Your task to perform on an android device: install app "Pluto TV - Live TV and Movies" Image 0: 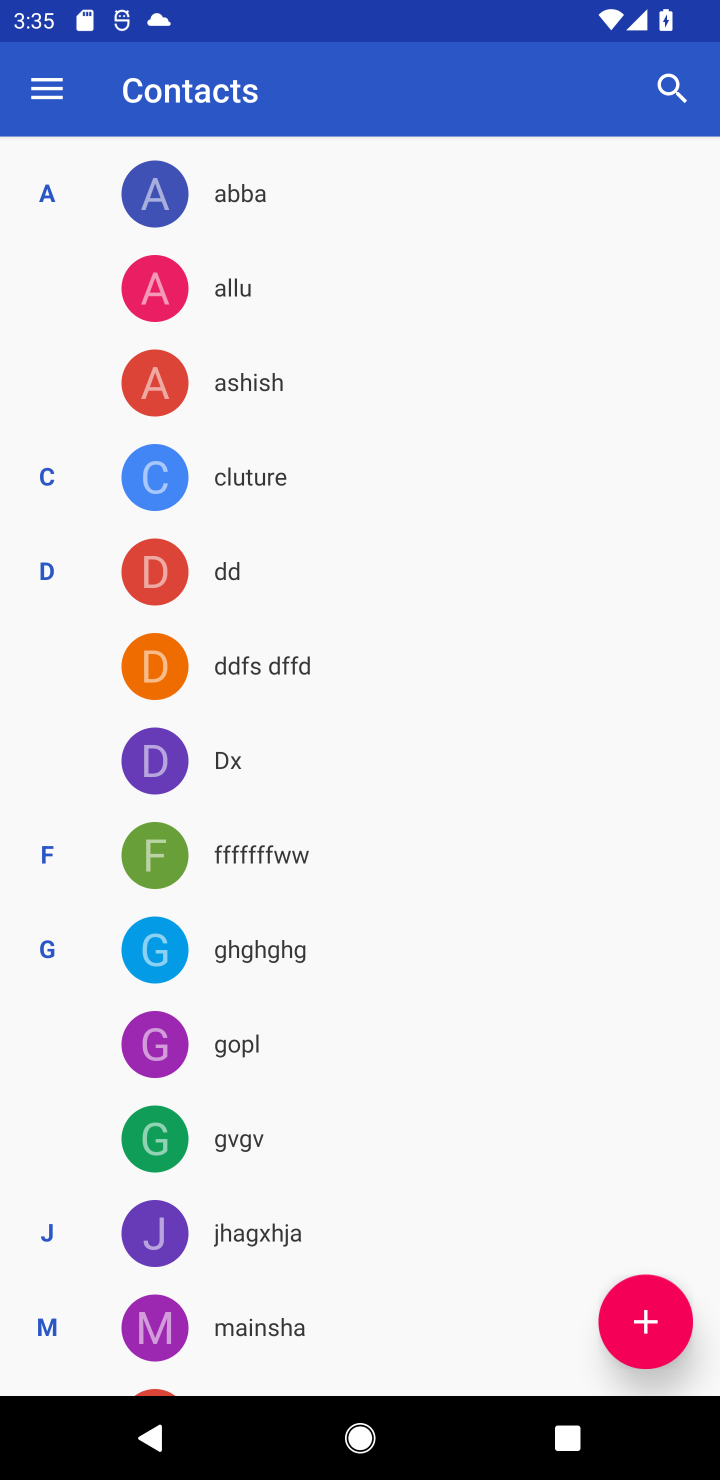
Step 0: press home button
Your task to perform on an android device: install app "Pluto TV - Live TV and Movies" Image 1: 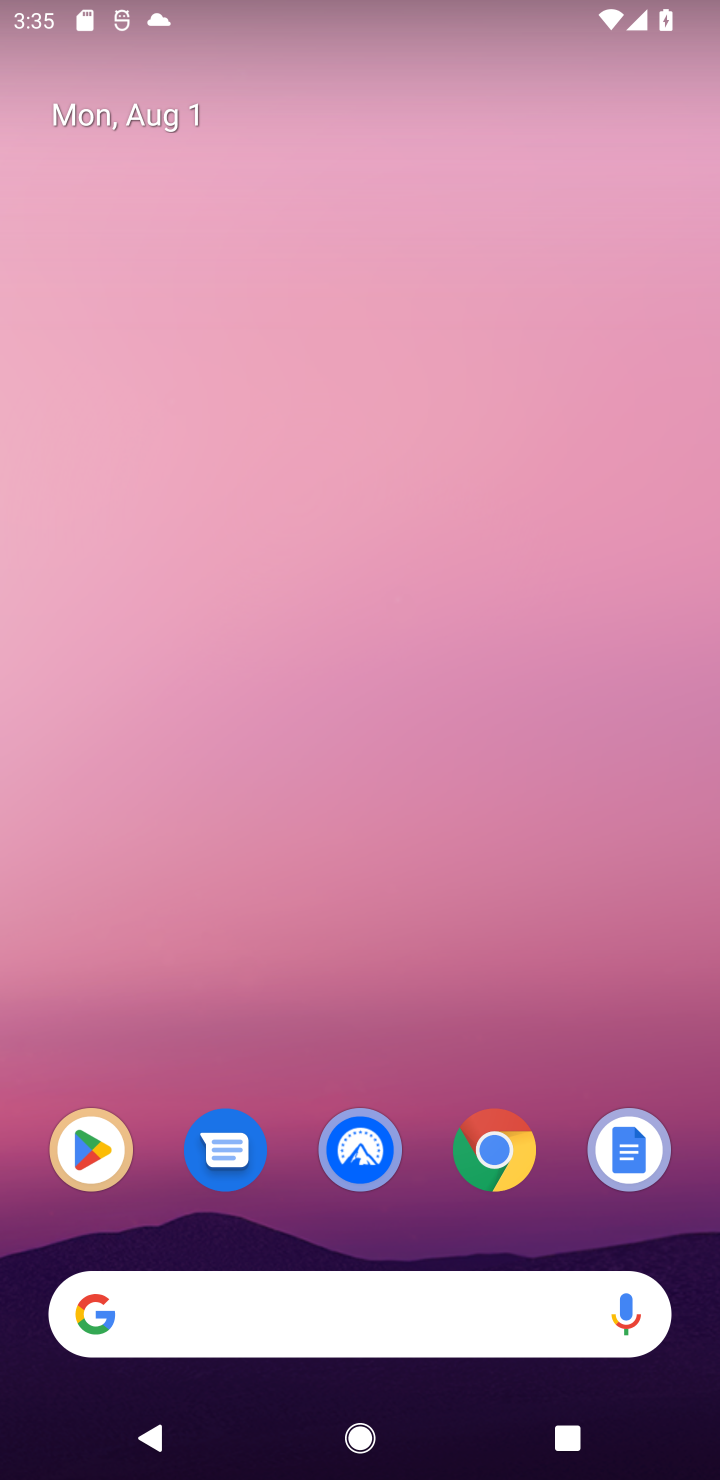
Step 1: click (111, 1163)
Your task to perform on an android device: install app "Pluto TV - Live TV and Movies" Image 2: 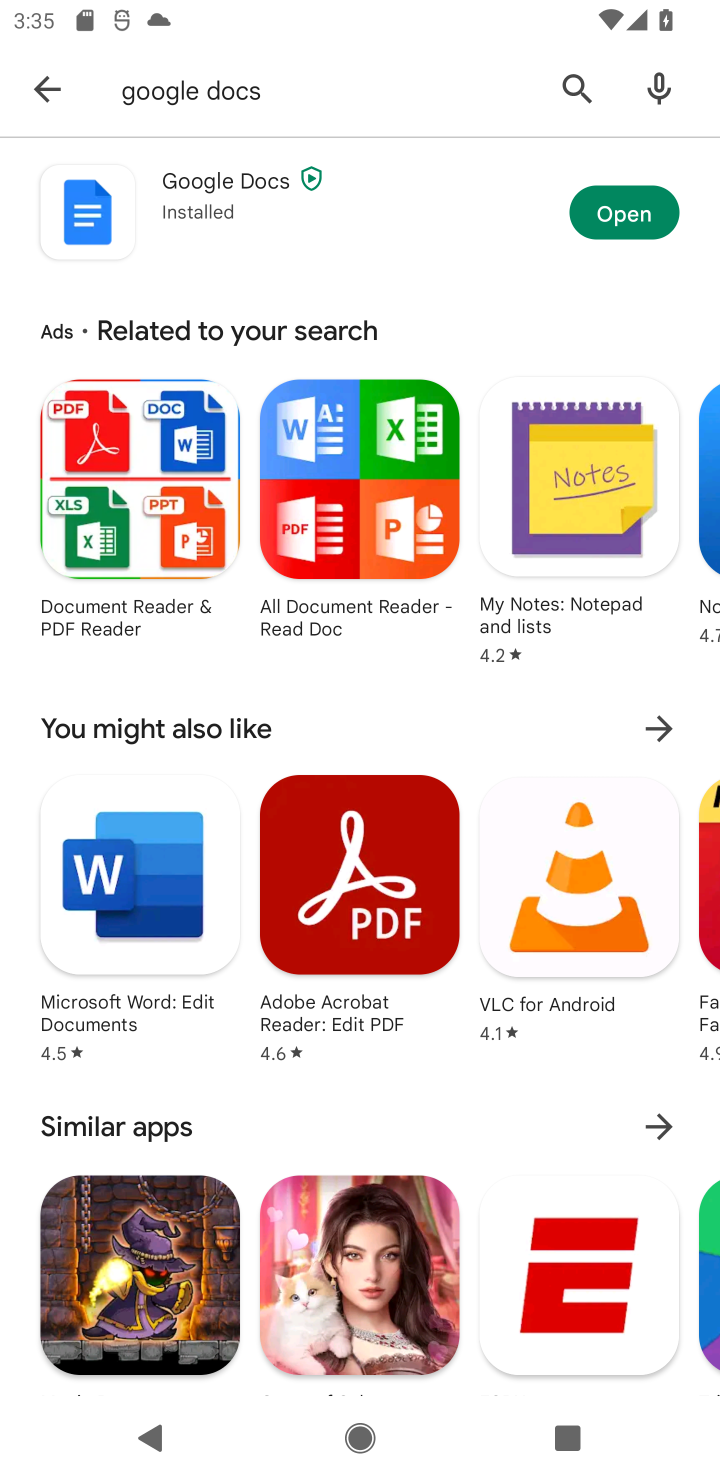
Step 2: click (559, 58)
Your task to perform on an android device: install app "Pluto TV - Live TV and Movies" Image 3: 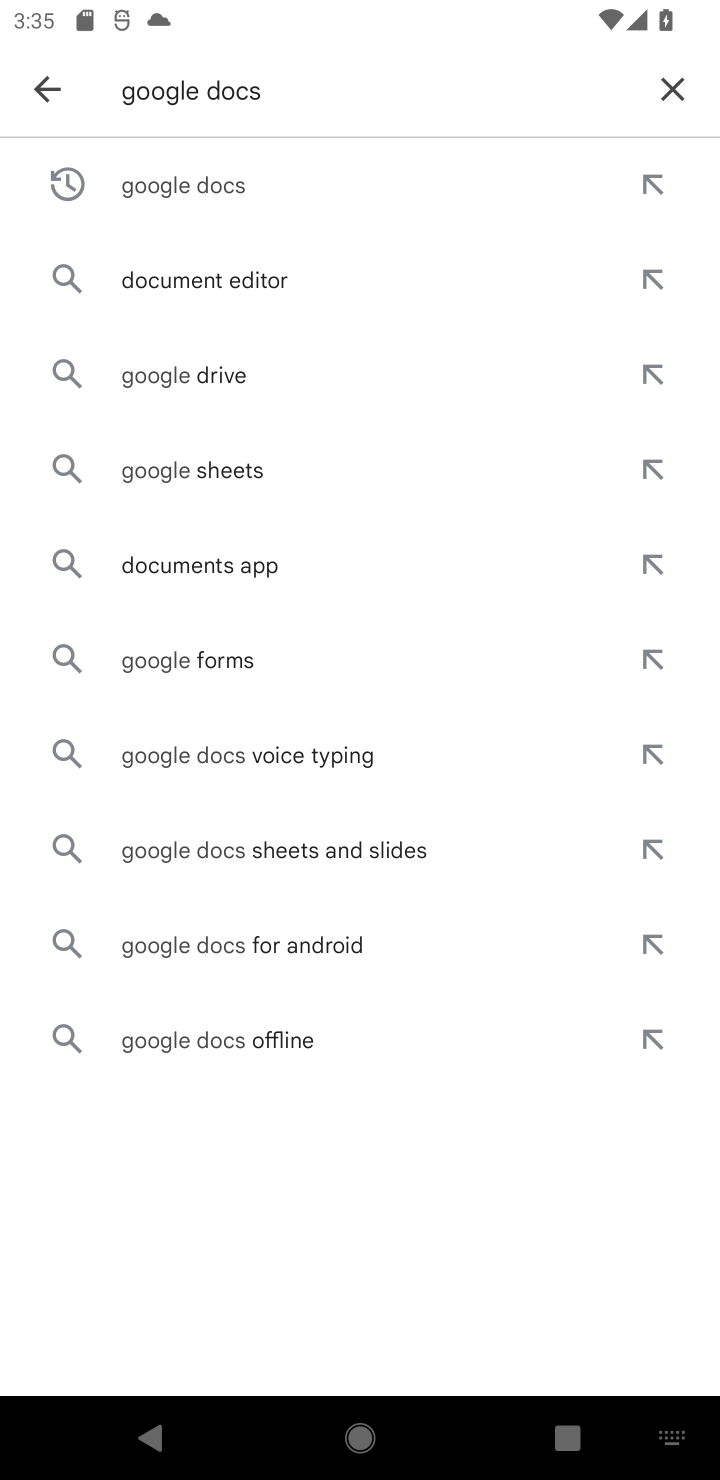
Step 3: click (660, 68)
Your task to perform on an android device: install app "Pluto TV - Live TV and Movies" Image 4: 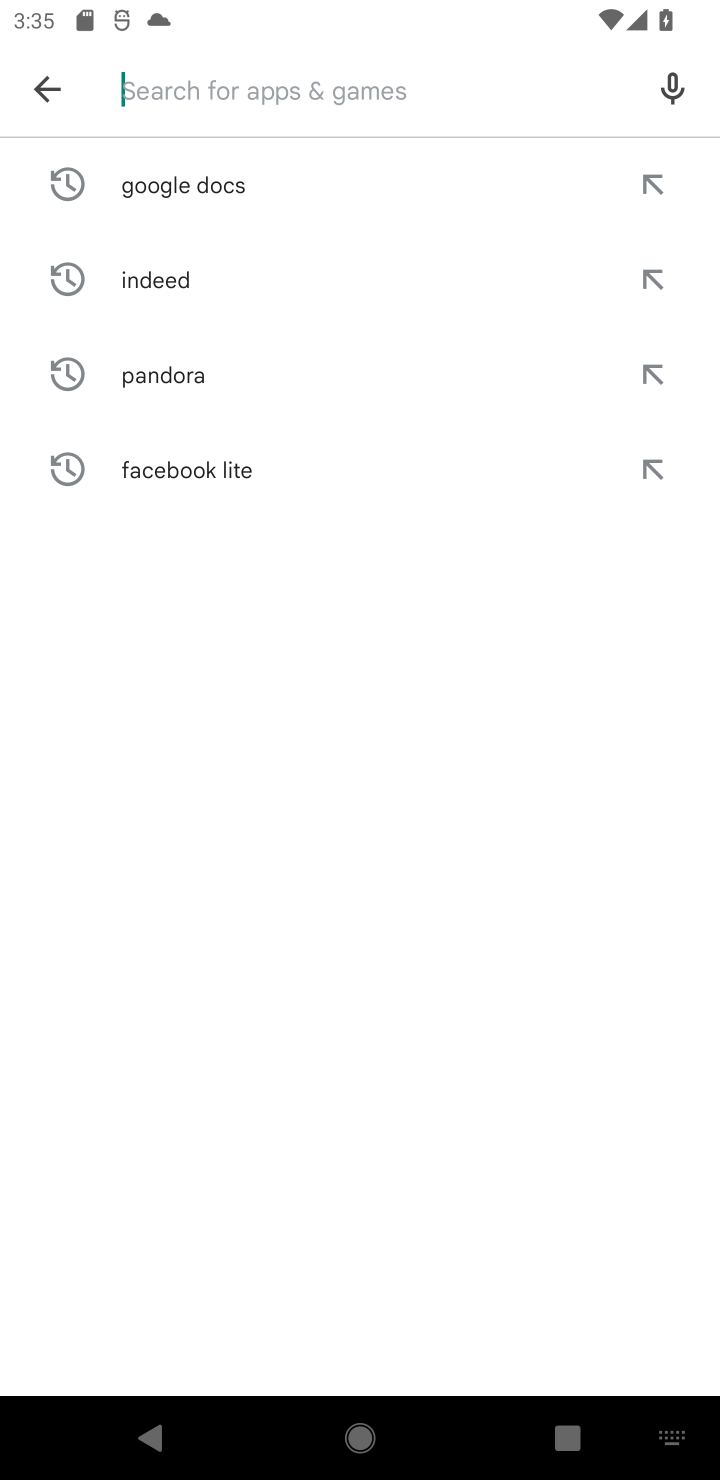
Step 4: type "pluto"
Your task to perform on an android device: install app "Pluto TV - Live TV and Movies" Image 5: 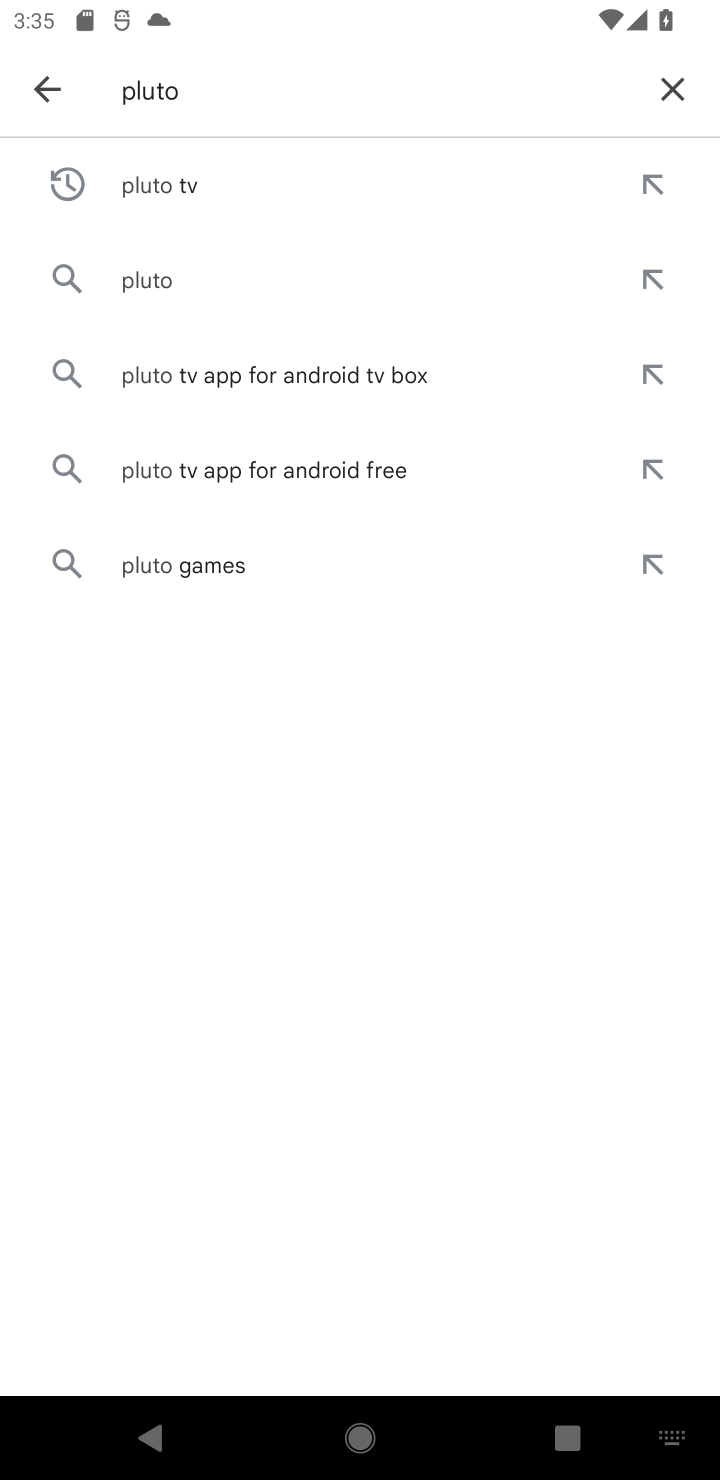
Step 5: click (133, 184)
Your task to perform on an android device: install app "Pluto TV - Live TV and Movies" Image 6: 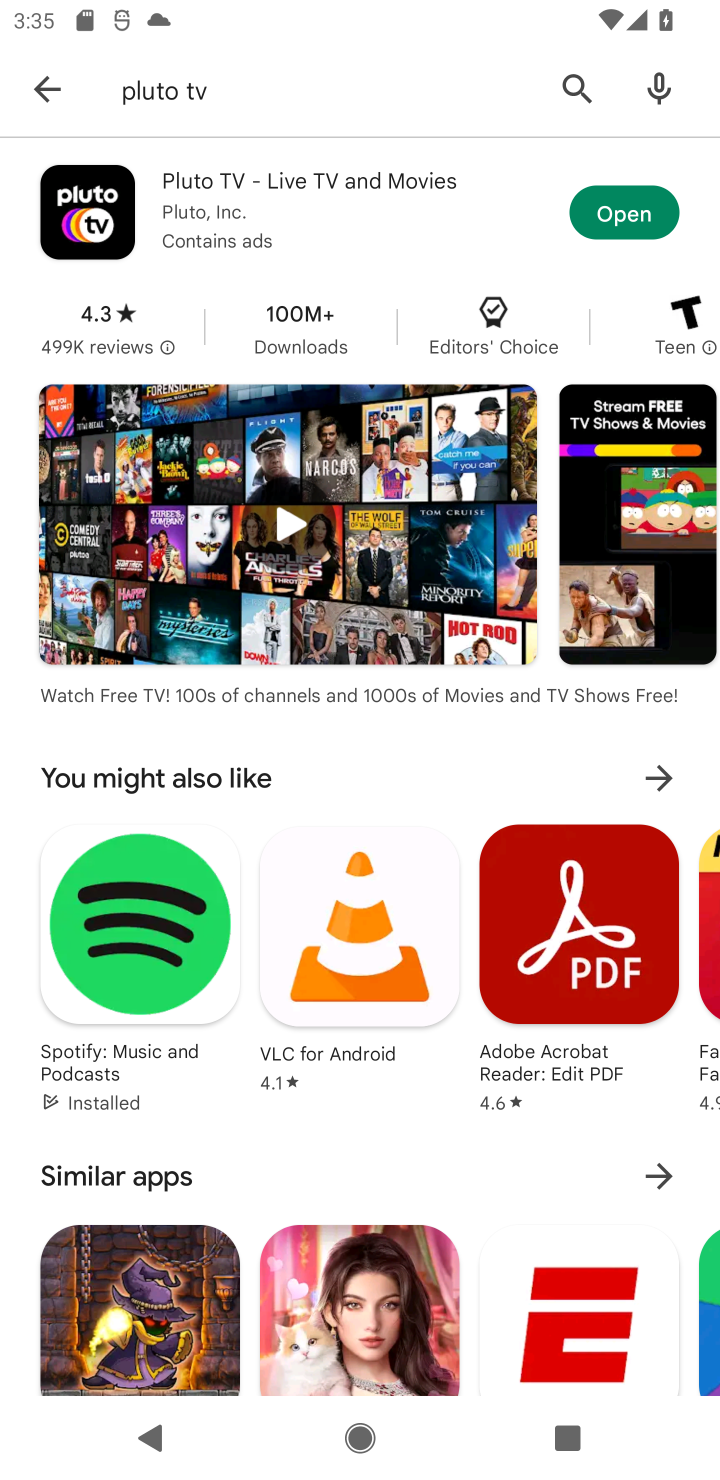
Step 6: click (631, 224)
Your task to perform on an android device: install app "Pluto TV - Live TV and Movies" Image 7: 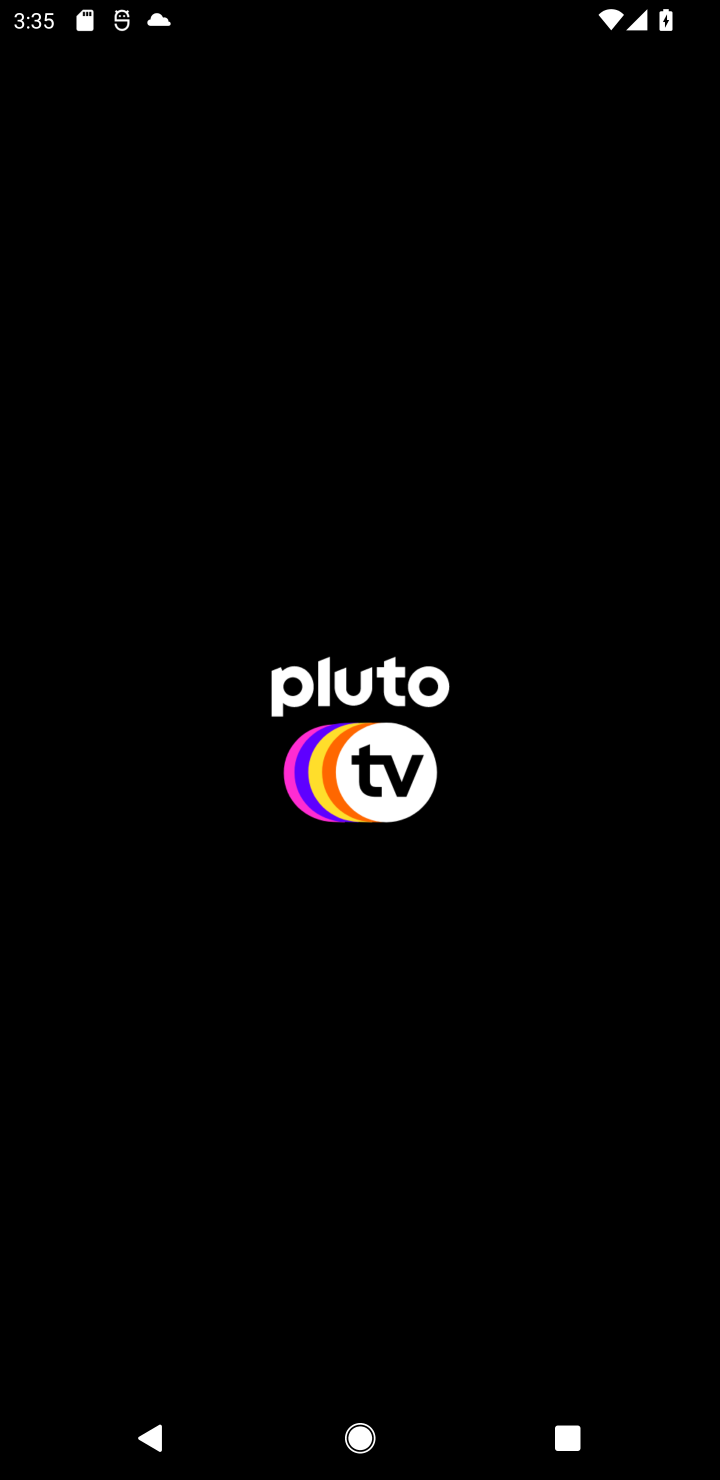
Step 7: task complete